Your task to perform on an android device: read, delete, or share a saved page in the chrome app Image 0: 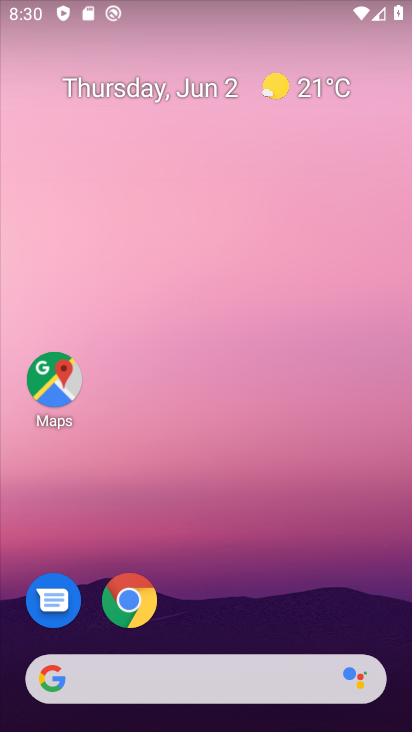
Step 0: click (130, 601)
Your task to perform on an android device: read, delete, or share a saved page in the chrome app Image 1: 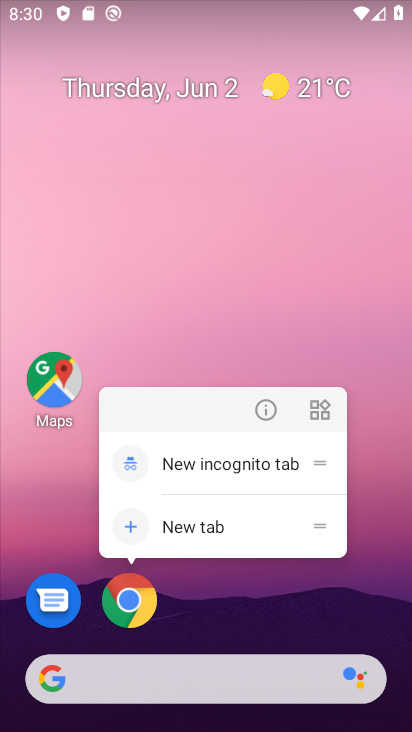
Step 1: click (141, 599)
Your task to perform on an android device: read, delete, or share a saved page in the chrome app Image 2: 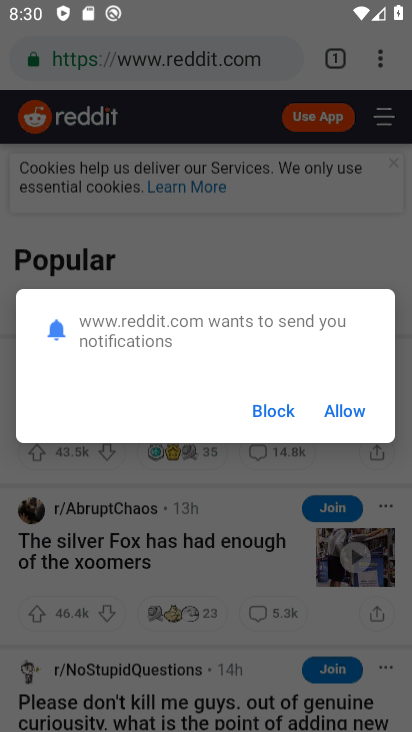
Step 2: click (339, 417)
Your task to perform on an android device: read, delete, or share a saved page in the chrome app Image 3: 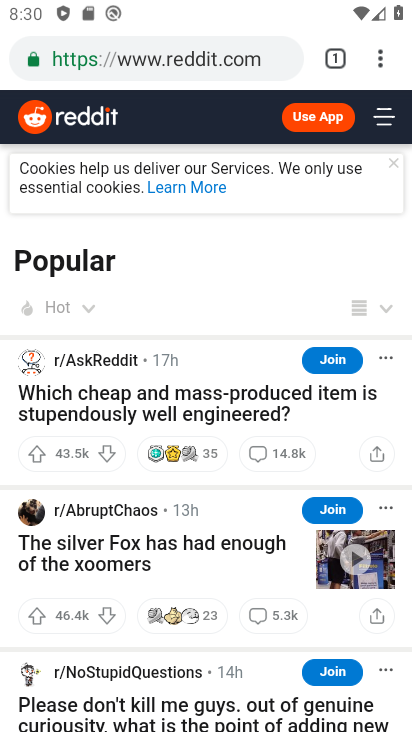
Step 3: drag from (381, 63) to (226, 372)
Your task to perform on an android device: read, delete, or share a saved page in the chrome app Image 4: 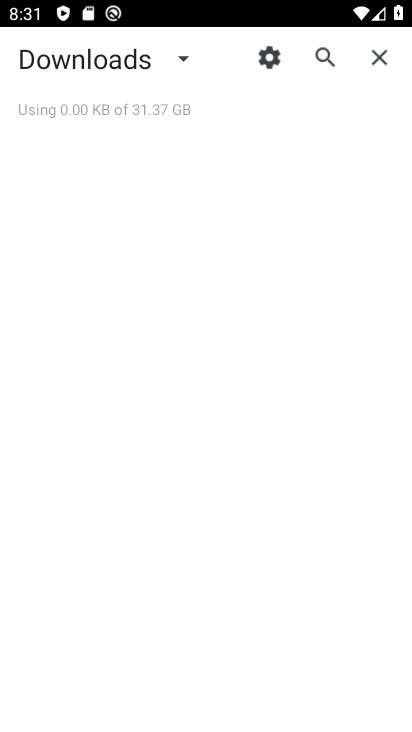
Step 4: click (184, 56)
Your task to perform on an android device: read, delete, or share a saved page in the chrome app Image 5: 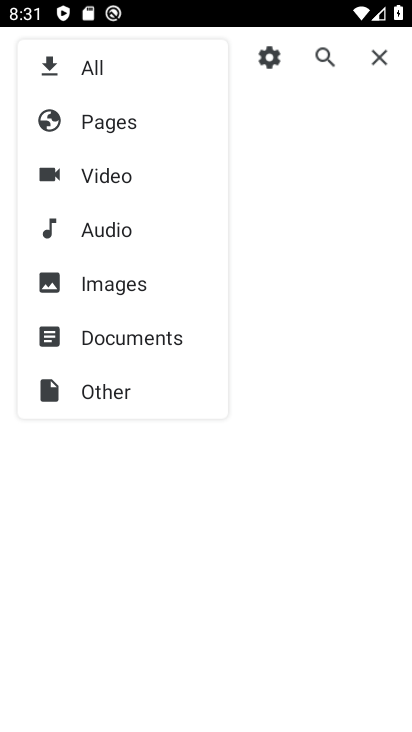
Step 5: click (94, 134)
Your task to perform on an android device: read, delete, or share a saved page in the chrome app Image 6: 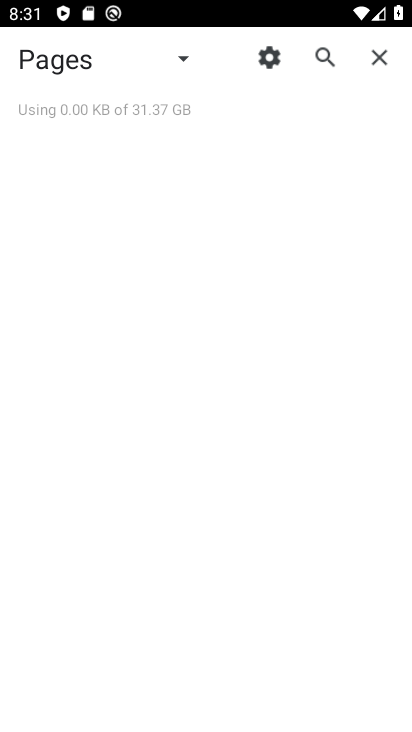
Step 6: task complete